Your task to perform on an android device: turn off wifi Image 0: 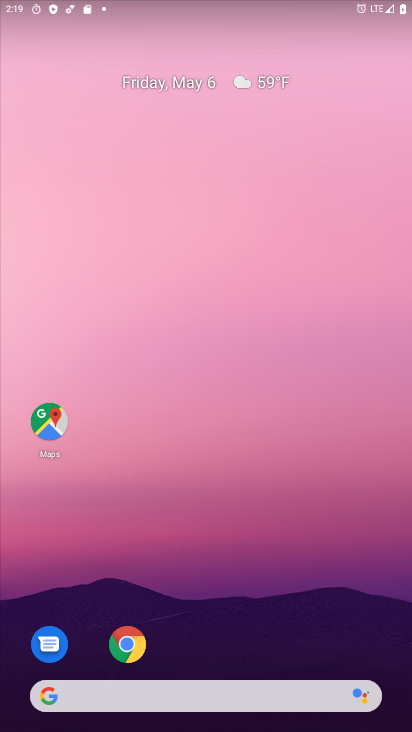
Step 0: drag from (241, 641) to (272, 162)
Your task to perform on an android device: turn off wifi Image 1: 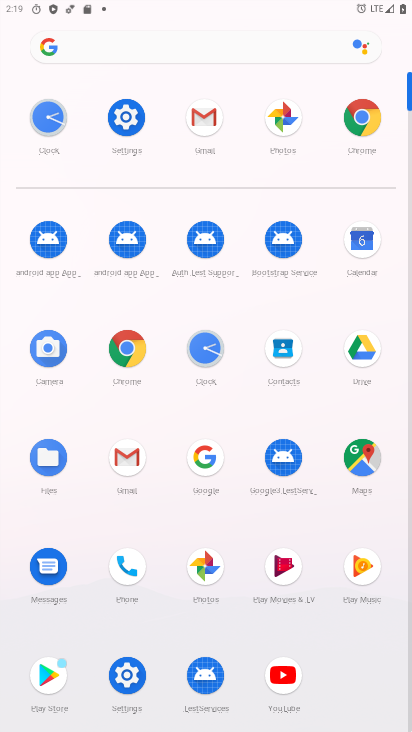
Step 1: click (130, 121)
Your task to perform on an android device: turn off wifi Image 2: 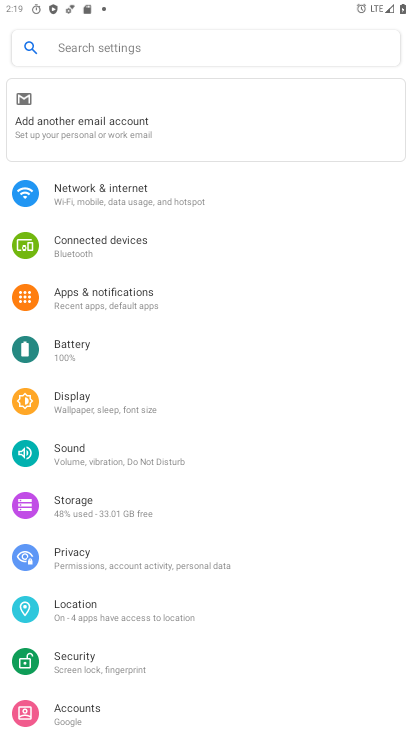
Step 2: click (139, 188)
Your task to perform on an android device: turn off wifi Image 3: 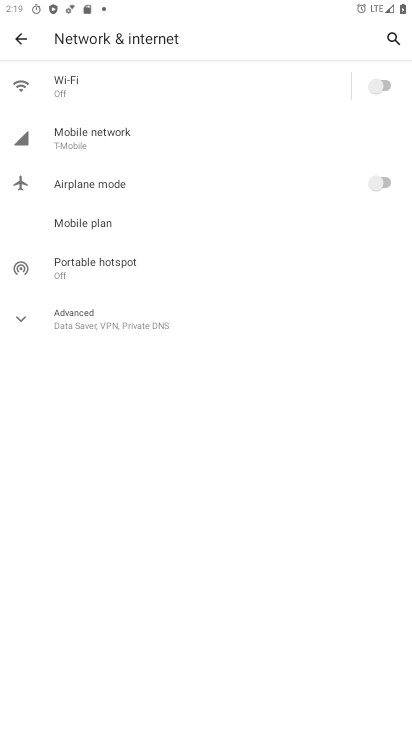
Step 3: task complete